Your task to perform on an android device: What's the weather today? Image 0: 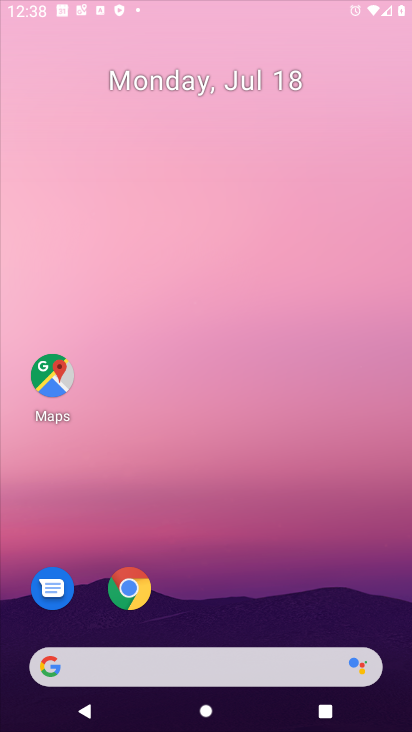
Step 0: press home button
Your task to perform on an android device: What's the weather today? Image 1: 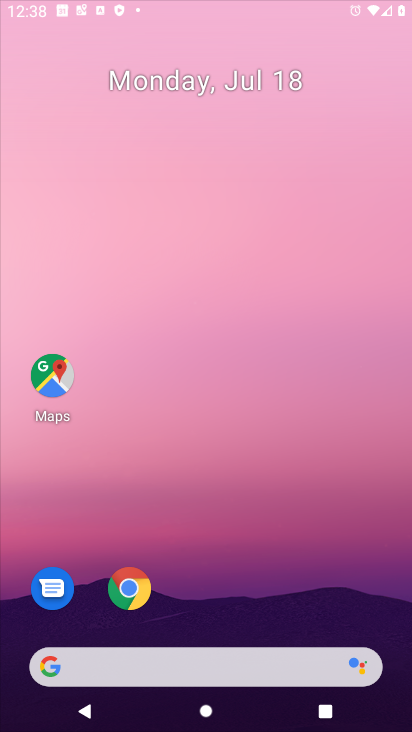
Step 1: click (312, 196)
Your task to perform on an android device: What's the weather today? Image 2: 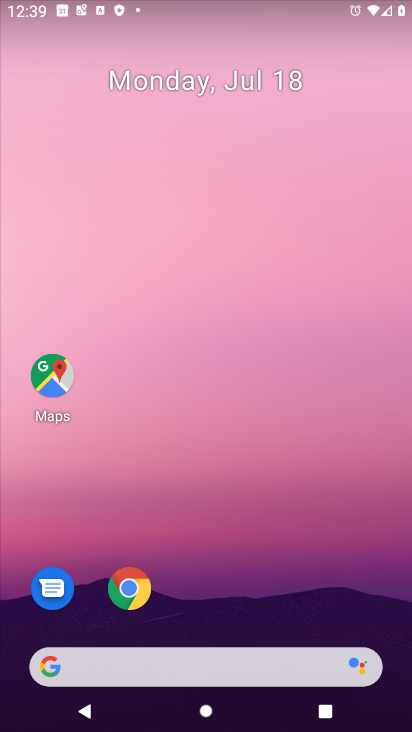
Step 2: drag from (196, 600) to (240, 145)
Your task to perform on an android device: What's the weather today? Image 3: 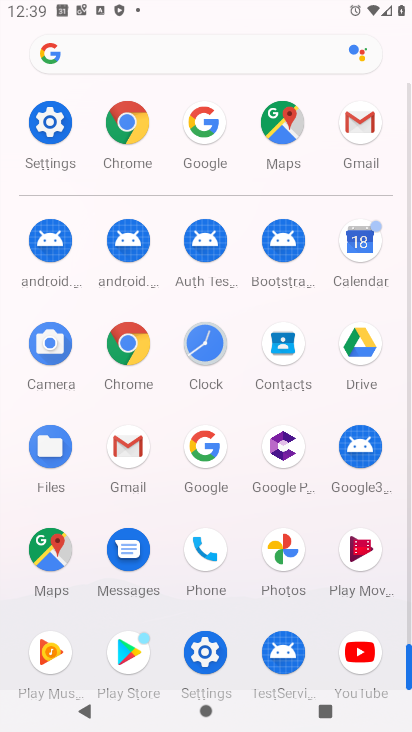
Step 3: click (214, 462)
Your task to perform on an android device: What's the weather today? Image 4: 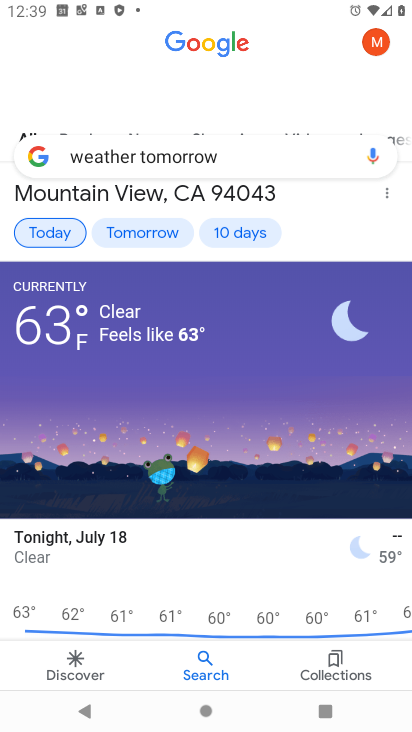
Step 4: task complete